Your task to perform on an android device: Open Google Image 0: 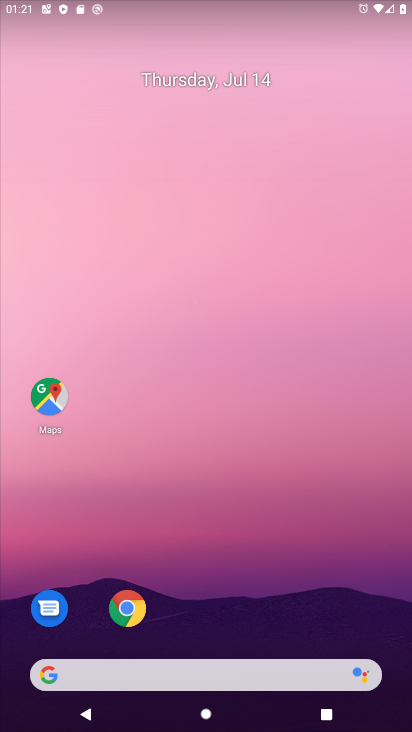
Step 0: press home button
Your task to perform on an android device: Open Google Image 1: 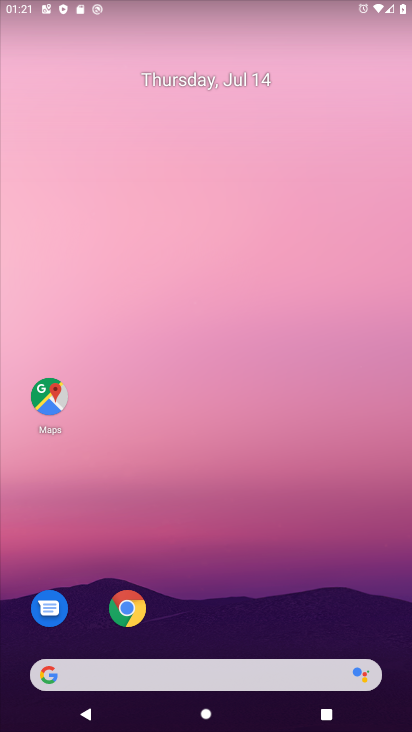
Step 1: drag from (255, 623) to (297, 0)
Your task to perform on an android device: Open Google Image 2: 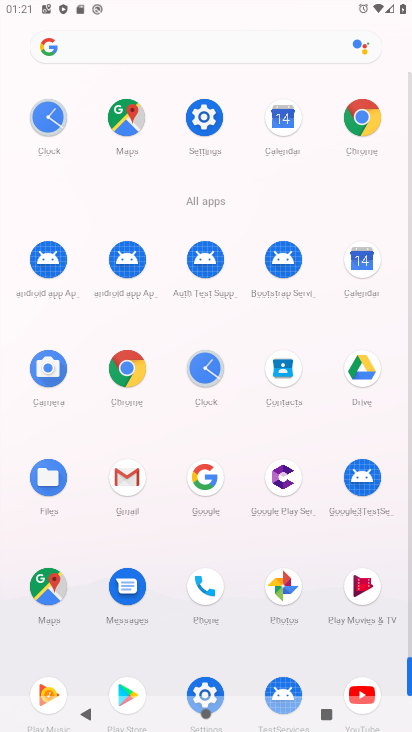
Step 2: click (196, 497)
Your task to perform on an android device: Open Google Image 3: 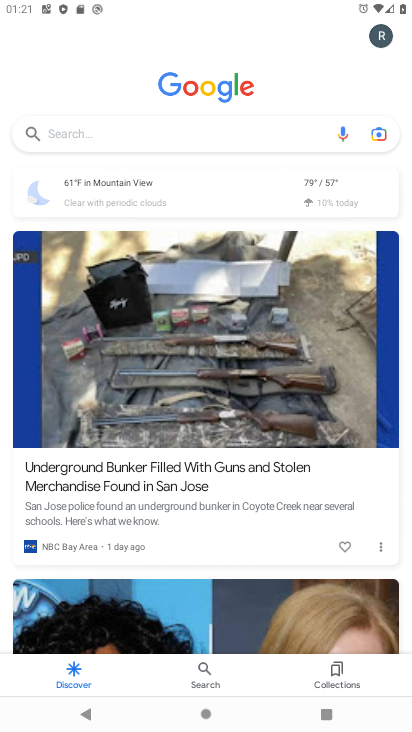
Step 3: click (104, 126)
Your task to perform on an android device: Open Google Image 4: 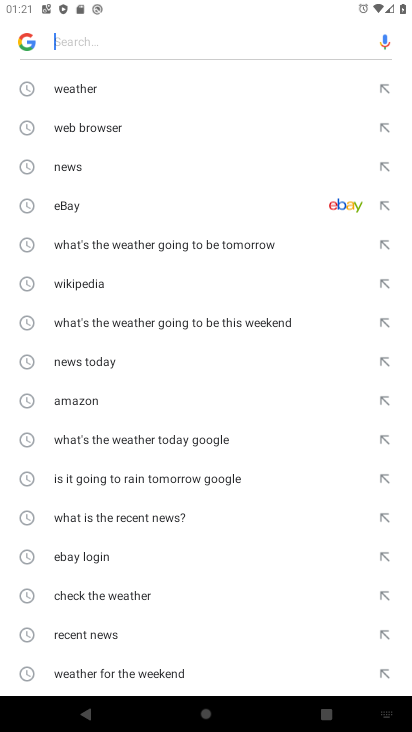
Step 4: task complete